Your task to perform on an android device: toggle priority inbox in the gmail app Image 0: 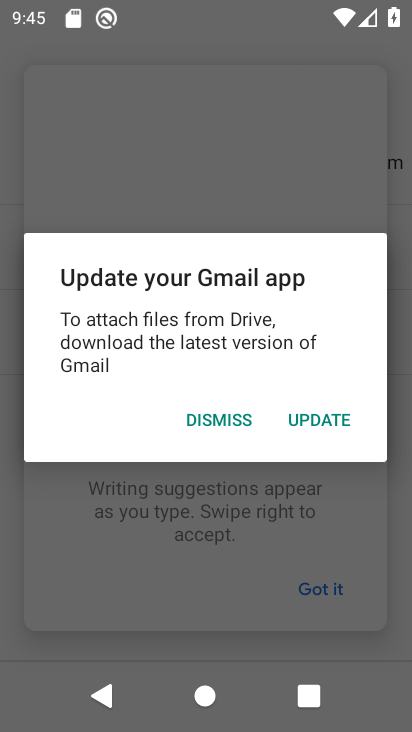
Step 0: press back button
Your task to perform on an android device: toggle priority inbox in the gmail app Image 1: 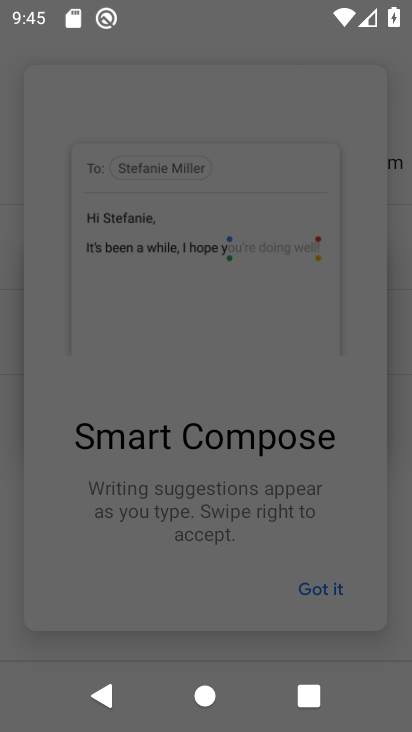
Step 1: press home button
Your task to perform on an android device: toggle priority inbox in the gmail app Image 2: 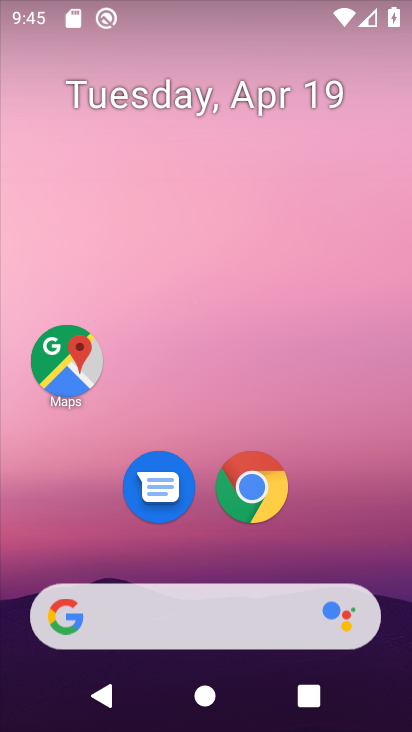
Step 2: drag from (324, 503) to (272, 12)
Your task to perform on an android device: toggle priority inbox in the gmail app Image 3: 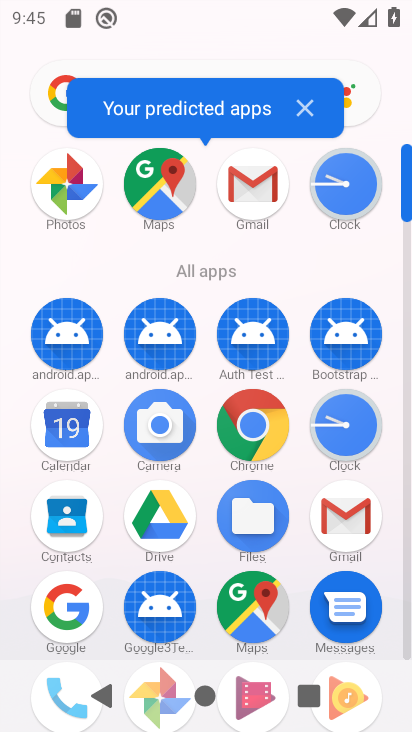
Step 3: drag from (12, 583) to (31, 210)
Your task to perform on an android device: toggle priority inbox in the gmail app Image 4: 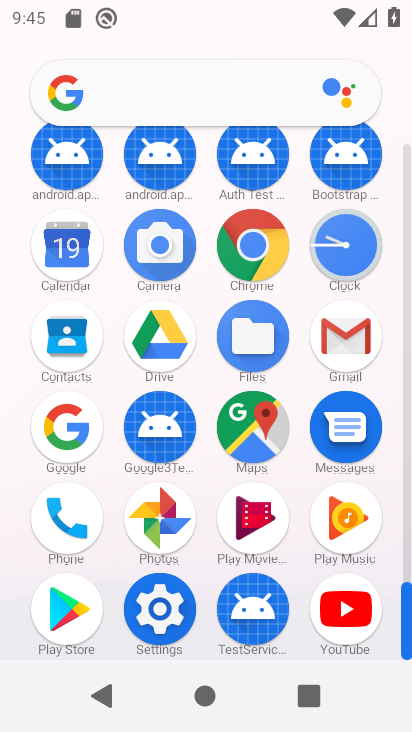
Step 4: click (350, 329)
Your task to perform on an android device: toggle priority inbox in the gmail app Image 5: 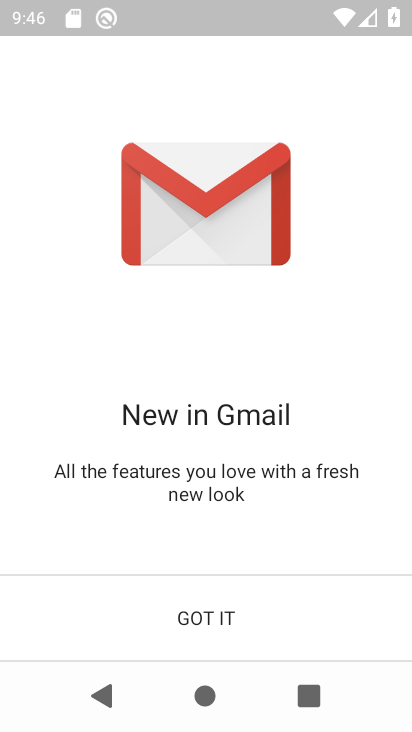
Step 5: click (199, 633)
Your task to perform on an android device: toggle priority inbox in the gmail app Image 6: 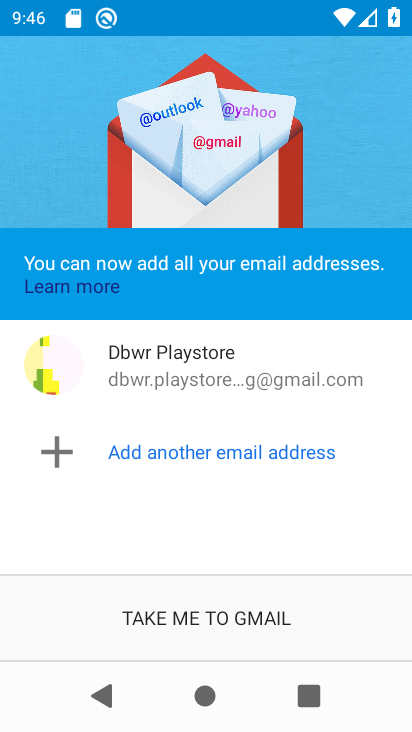
Step 6: click (199, 631)
Your task to perform on an android device: toggle priority inbox in the gmail app Image 7: 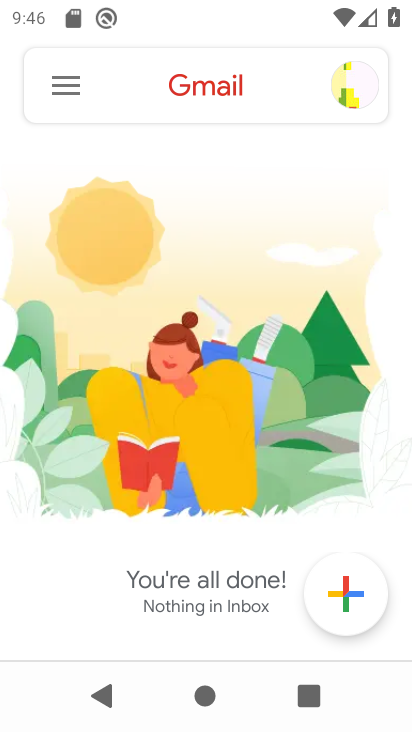
Step 7: click (55, 91)
Your task to perform on an android device: toggle priority inbox in the gmail app Image 8: 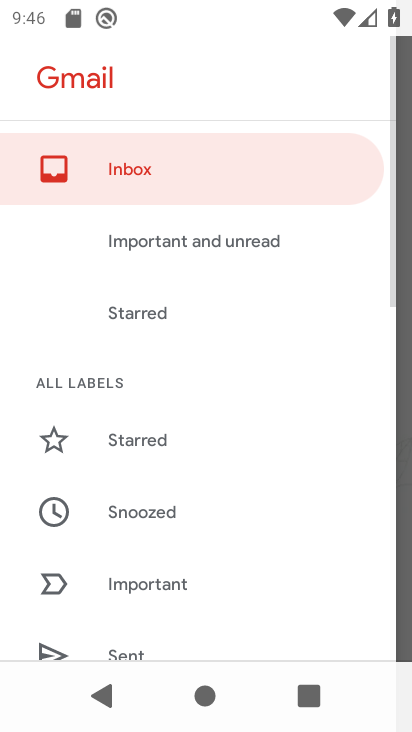
Step 8: drag from (185, 464) to (197, 136)
Your task to perform on an android device: toggle priority inbox in the gmail app Image 9: 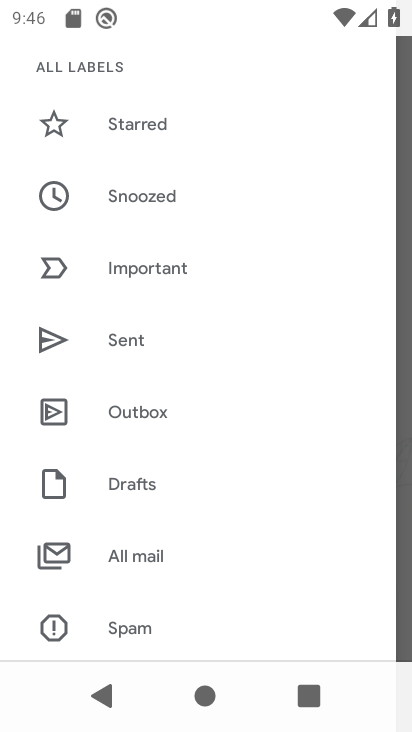
Step 9: drag from (177, 523) to (204, 97)
Your task to perform on an android device: toggle priority inbox in the gmail app Image 10: 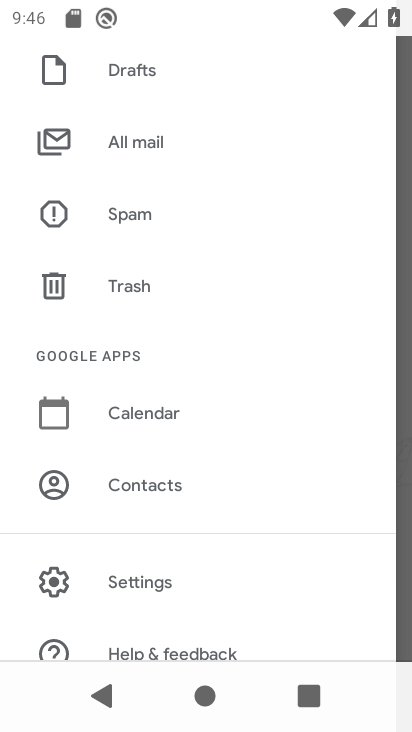
Step 10: drag from (214, 472) to (220, 111)
Your task to perform on an android device: toggle priority inbox in the gmail app Image 11: 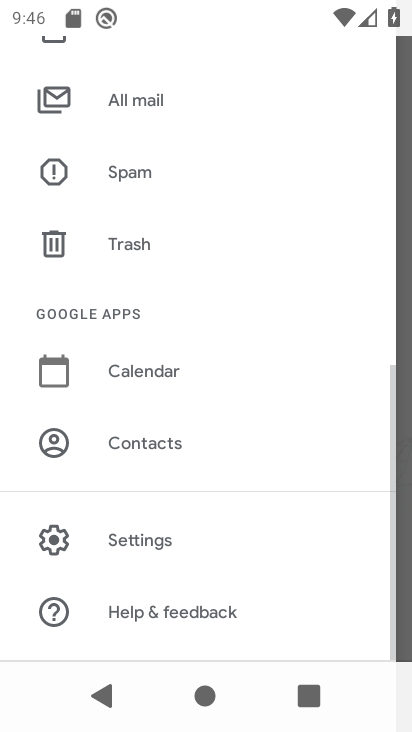
Step 11: click (158, 528)
Your task to perform on an android device: toggle priority inbox in the gmail app Image 12: 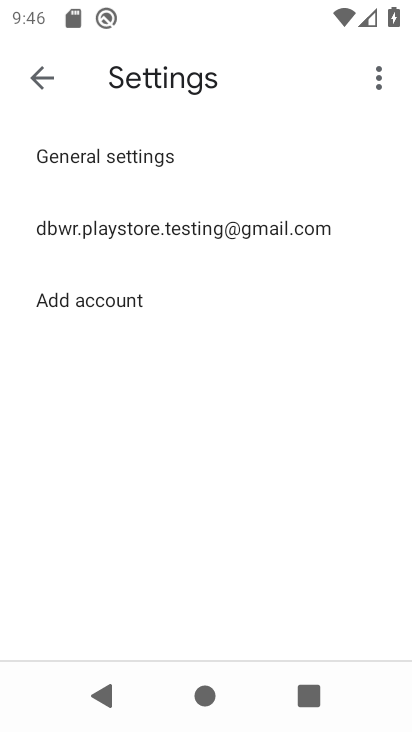
Step 12: click (171, 239)
Your task to perform on an android device: toggle priority inbox in the gmail app Image 13: 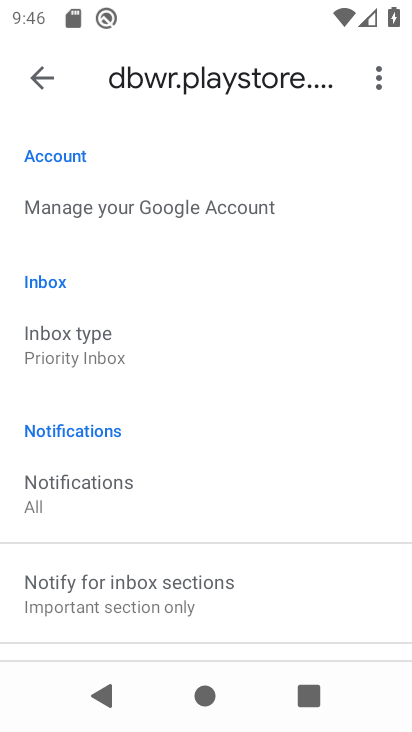
Step 13: click (133, 340)
Your task to perform on an android device: toggle priority inbox in the gmail app Image 14: 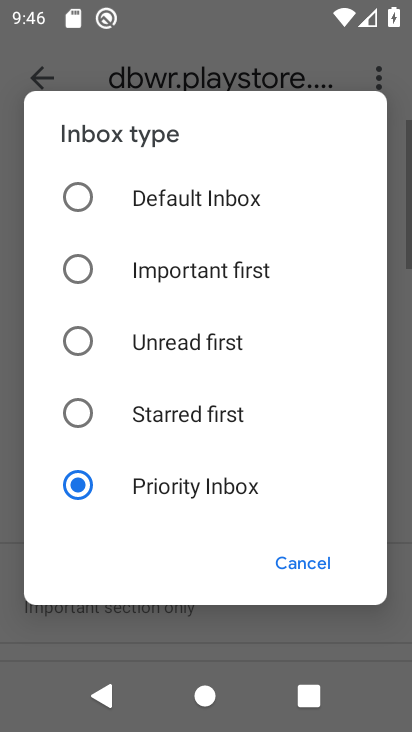
Step 14: click (180, 261)
Your task to perform on an android device: toggle priority inbox in the gmail app Image 15: 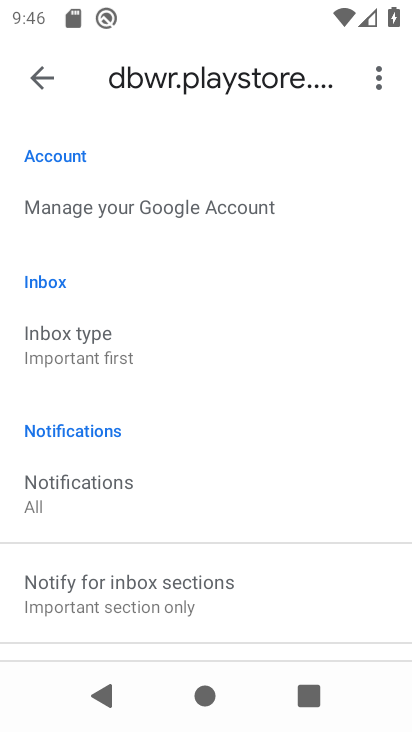
Step 15: drag from (263, 486) to (307, 227)
Your task to perform on an android device: toggle priority inbox in the gmail app Image 16: 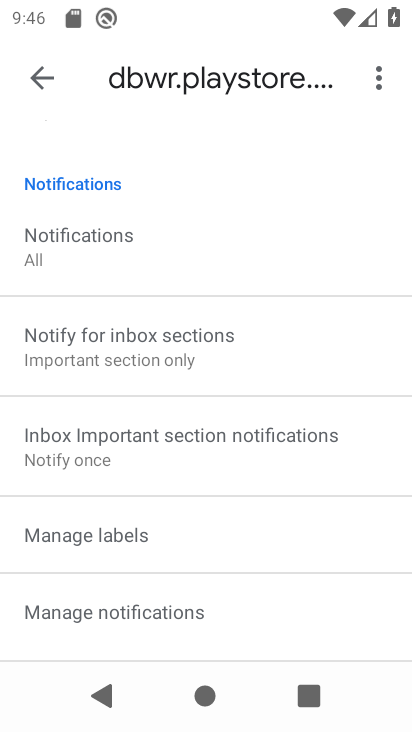
Step 16: drag from (305, 204) to (305, 380)
Your task to perform on an android device: toggle priority inbox in the gmail app Image 17: 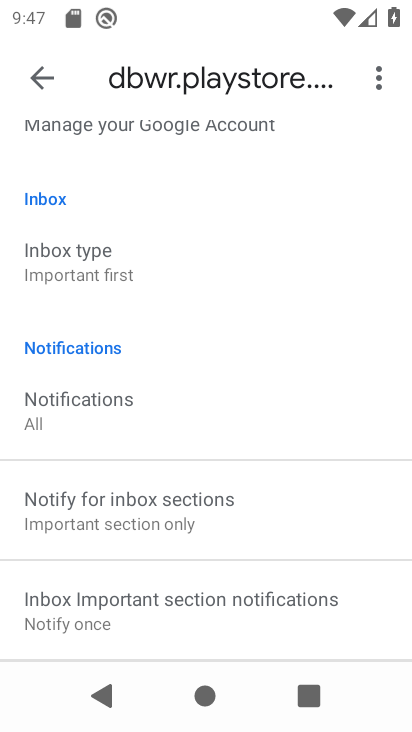
Step 17: click (162, 266)
Your task to perform on an android device: toggle priority inbox in the gmail app Image 18: 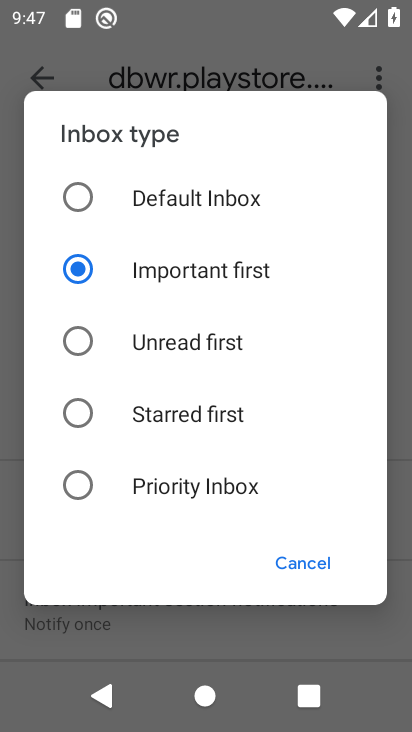
Step 18: click (130, 403)
Your task to perform on an android device: toggle priority inbox in the gmail app Image 19: 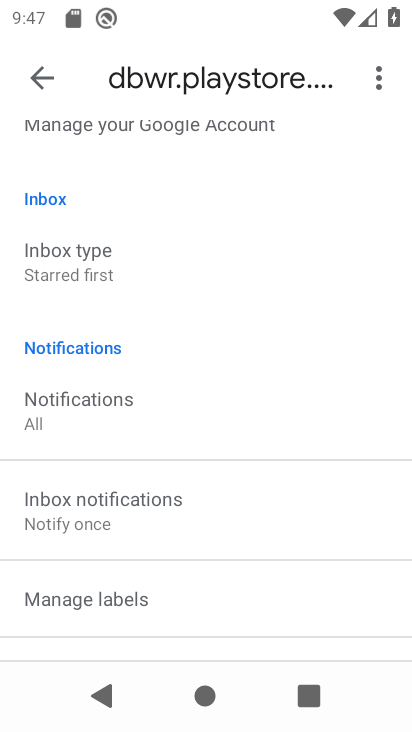
Step 19: task complete